Your task to perform on an android device: set default search engine in the chrome app Image 0: 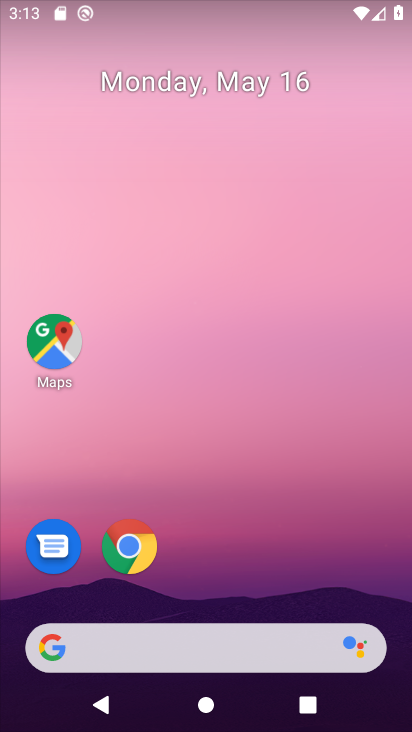
Step 0: drag from (368, 540) to (377, 135)
Your task to perform on an android device: set default search engine in the chrome app Image 1: 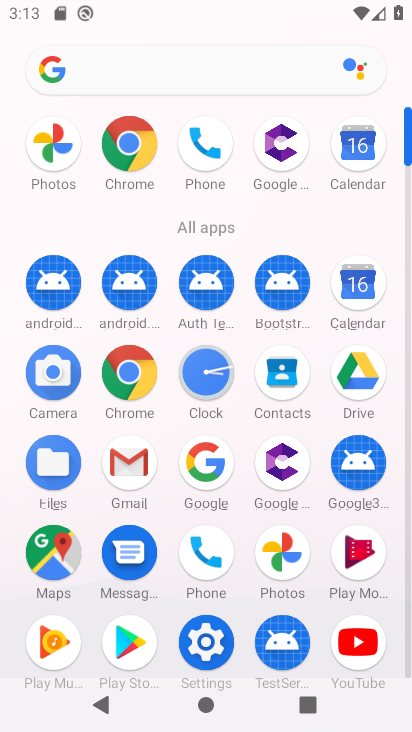
Step 1: click (138, 393)
Your task to perform on an android device: set default search engine in the chrome app Image 2: 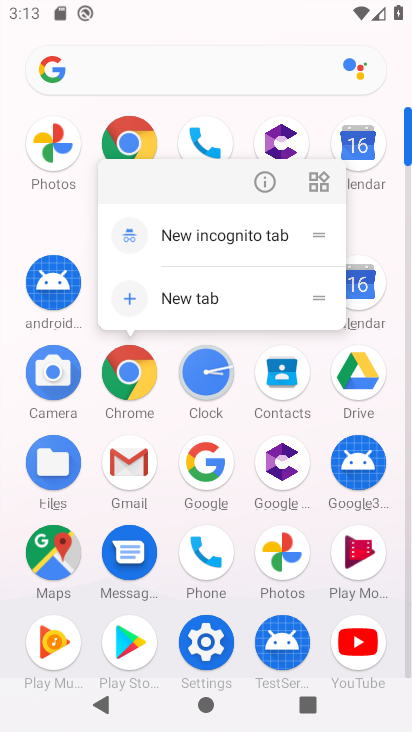
Step 2: click (138, 393)
Your task to perform on an android device: set default search engine in the chrome app Image 3: 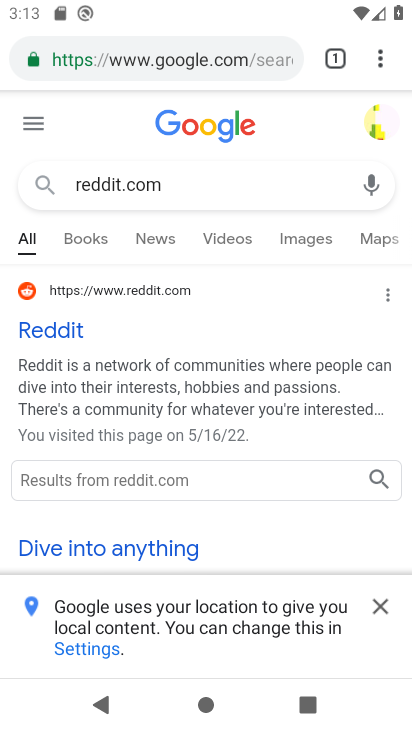
Step 3: click (380, 59)
Your task to perform on an android device: set default search engine in the chrome app Image 4: 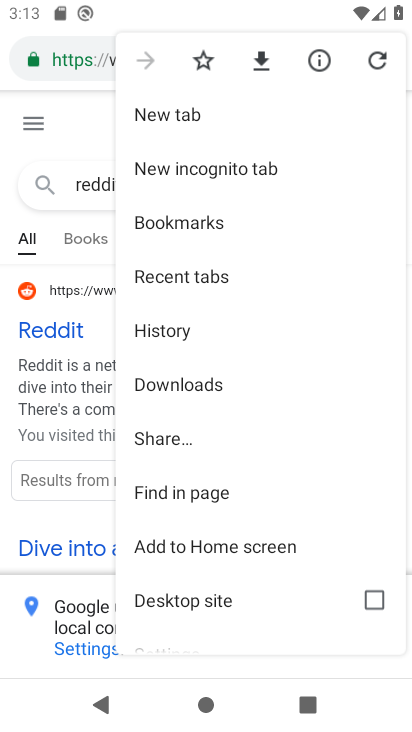
Step 4: drag from (333, 492) to (339, 344)
Your task to perform on an android device: set default search engine in the chrome app Image 5: 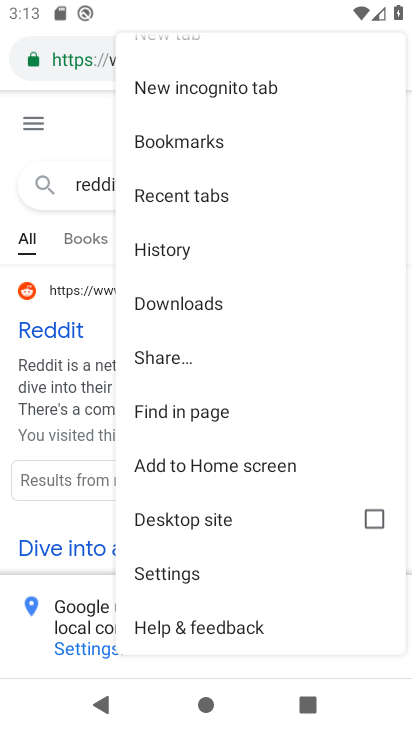
Step 5: click (212, 579)
Your task to perform on an android device: set default search engine in the chrome app Image 6: 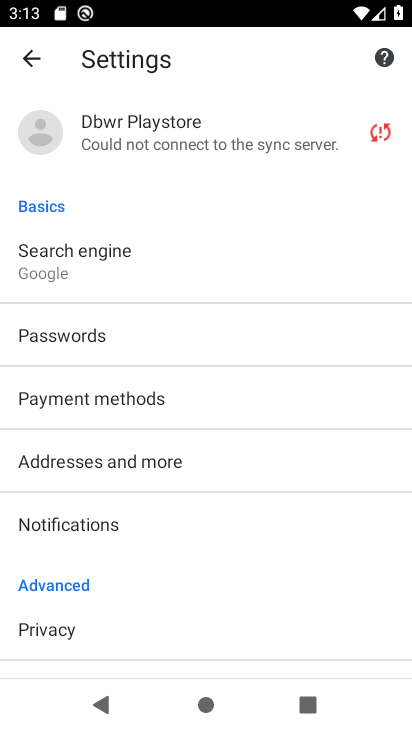
Step 6: drag from (281, 497) to (292, 382)
Your task to perform on an android device: set default search engine in the chrome app Image 7: 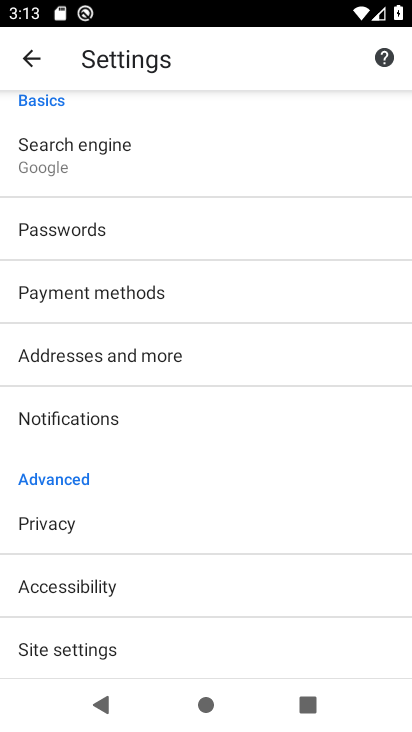
Step 7: drag from (320, 547) to (330, 368)
Your task to perform on an android device: set default search engine in the chrome app Image 8: 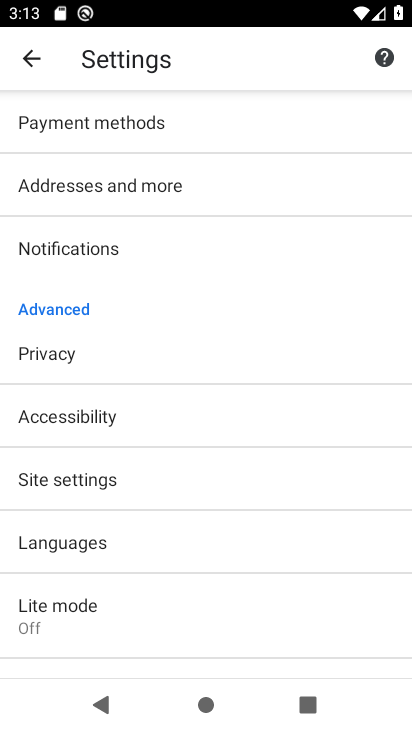
Step 8: drag from (303, 608) to (350, 392)
Your task to perform on an android device: set default search engine in the chrome app Image 9: 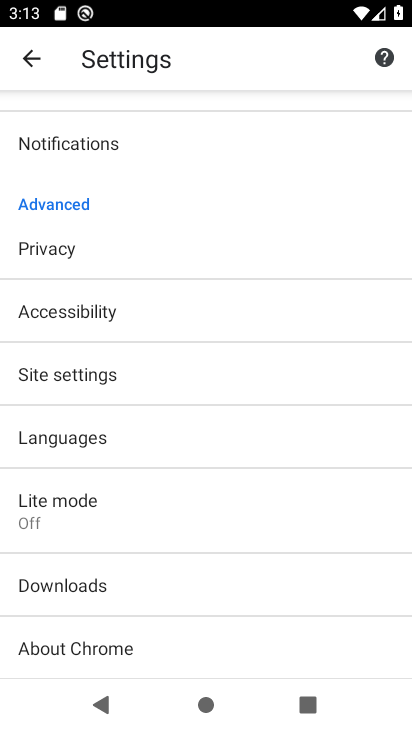
Step 9: drag from (330, 256) to (312, 443)
Your task to perform on an android device: set default search engine in the chrome app Image 10: 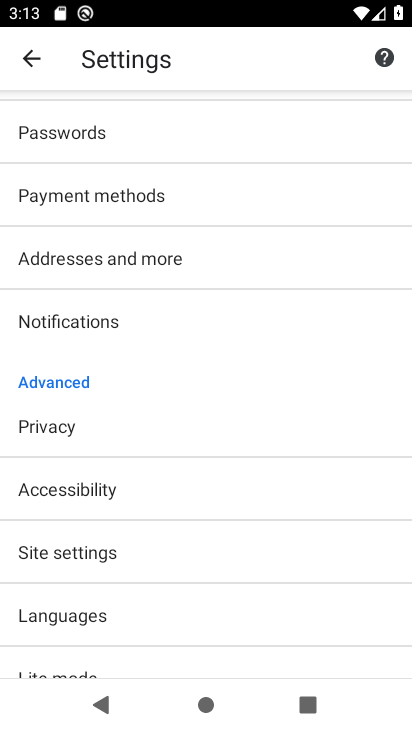
Step 10: drag from (325, 238) to (320, 377)
Your task to perform on an android device: set default search engine in the chrome app Image 11: 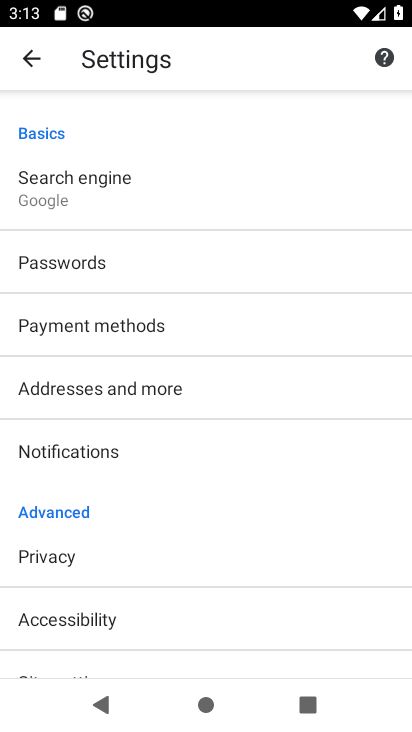
Step 11: drag from (282, 221) to (245, 361)
Your task to perform on an android device: set default search engine in the chrome app Image 12: 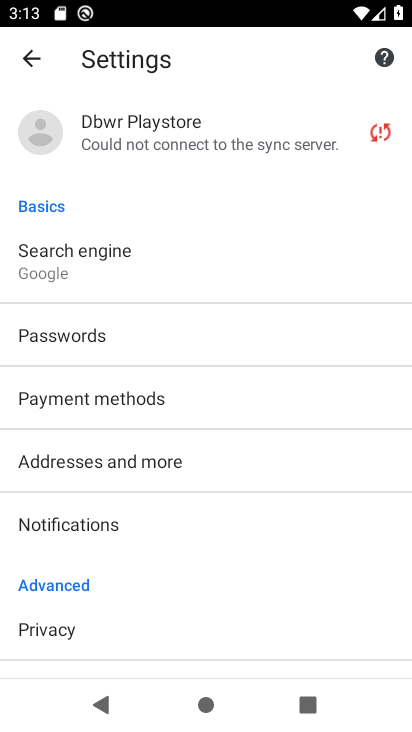
Step 12: click (151, 282)
Your task to perform on an android device: set default search engine in the chrome app Image 13: 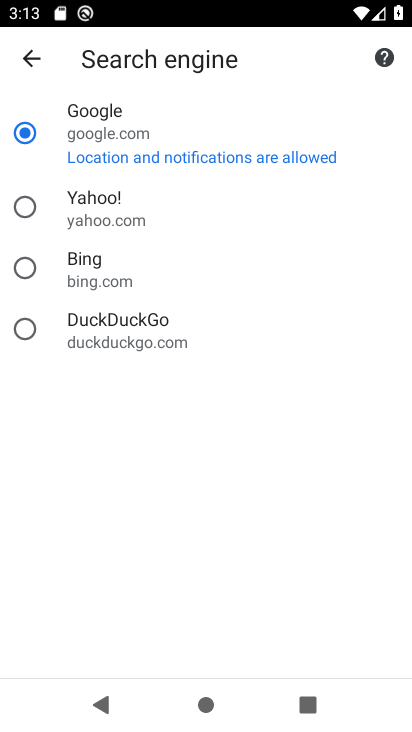
Step 13: click (119, 278)
Your task to perform on an android device: set default search engine in the chrome app Image 14: 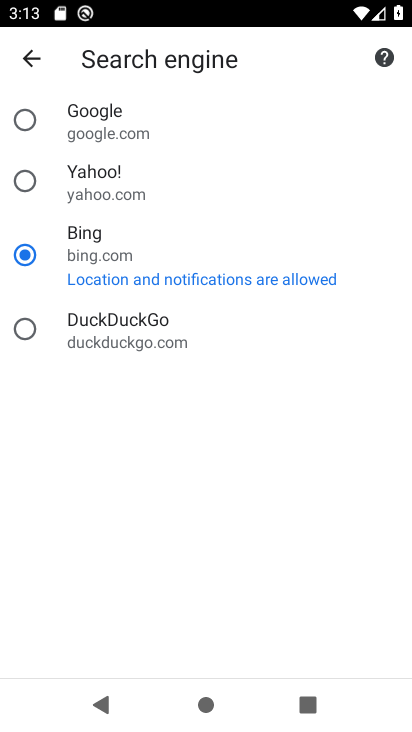
Step 14: task complete